Your task to perform on an android device: turn off smart reply in the gmail app Image 0: 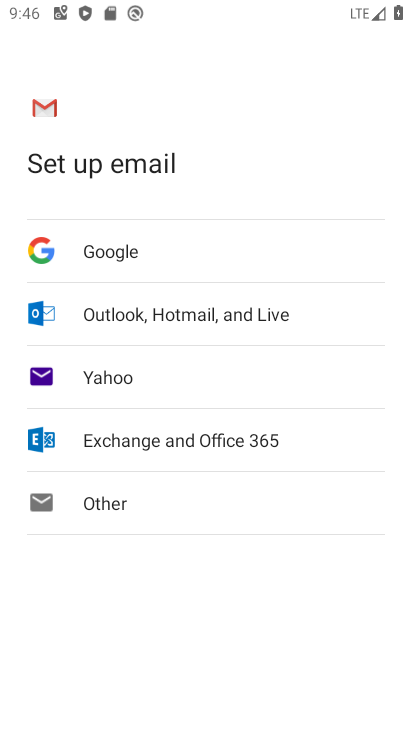
Step 0: press home button
Your task to perform on an android device: turn off smart reply in the gmail app Image 1: 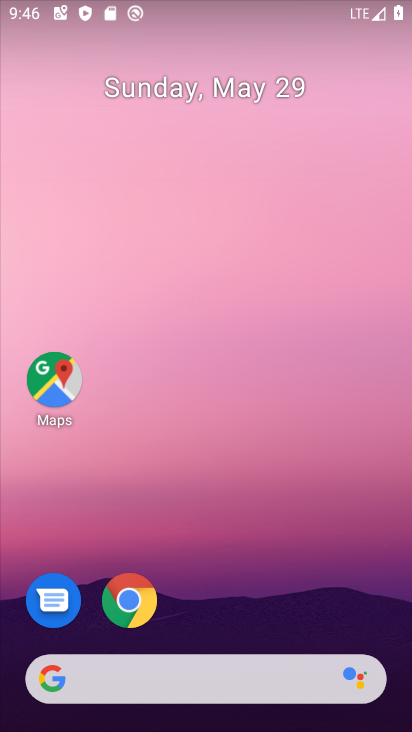
Step 1: drag from (262, 598) to (287, 35)
Your task to perform on an android device: turn off smart reply in the gmail app Image 2: 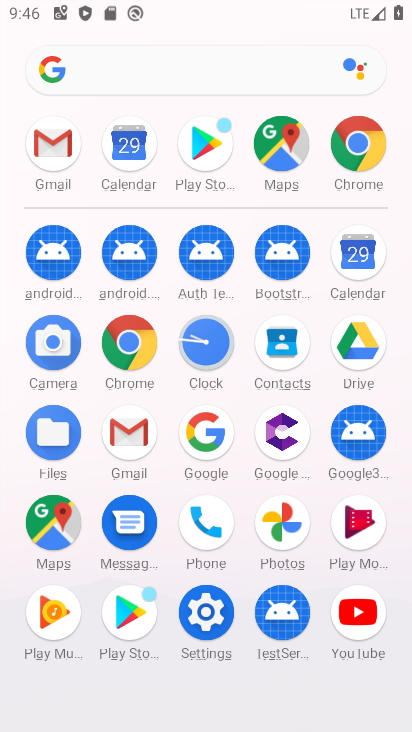
Step 2: click (124, 433)
Your task to perform on an android device: turn off smart reply in the gmail app Image 3: 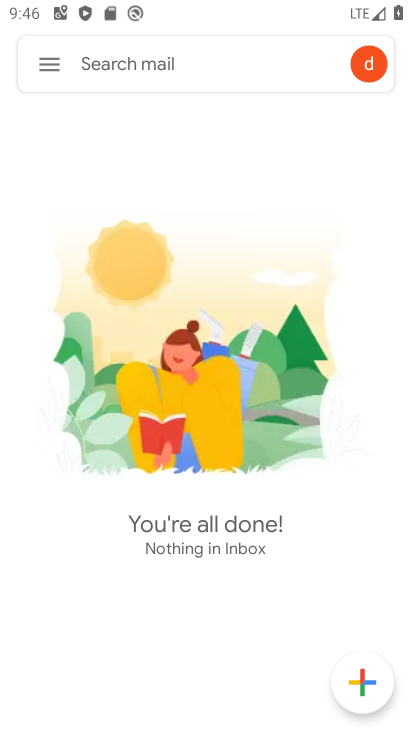
Step 3: click (40, 72)
Your task to perform on an android device: turn off smart reply in the gmail app Image 4: 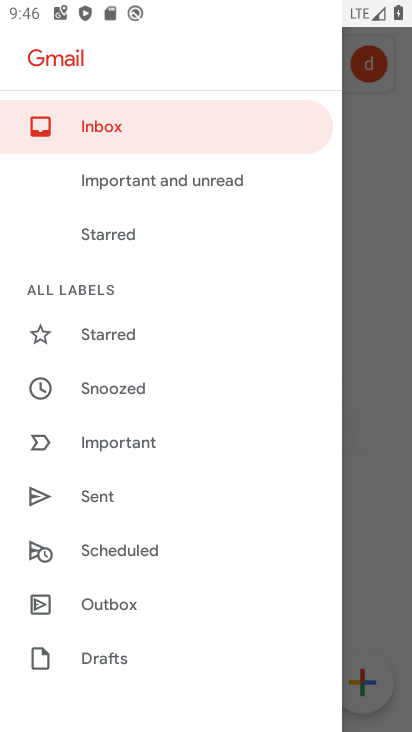
Step 4: drag from (165, 643) to (162, 304)
Your task to perform on an android device: turn off smart reply in the gmail app Image 5: 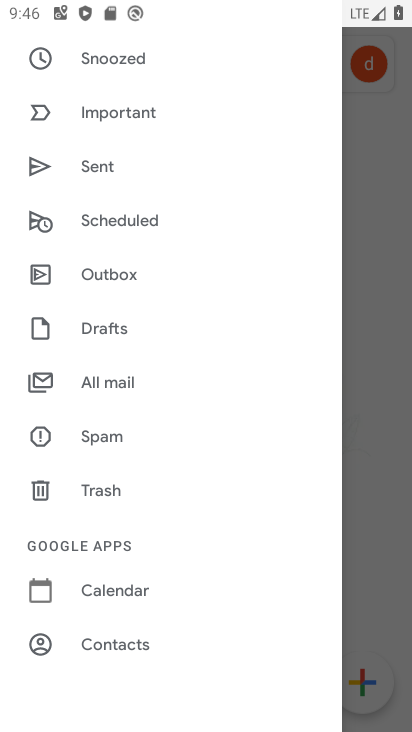
Step 5: drag from (190, 607) to (181, 222)
Your task to perform on an android device: turn off smart reply in the gmail app Image 6: 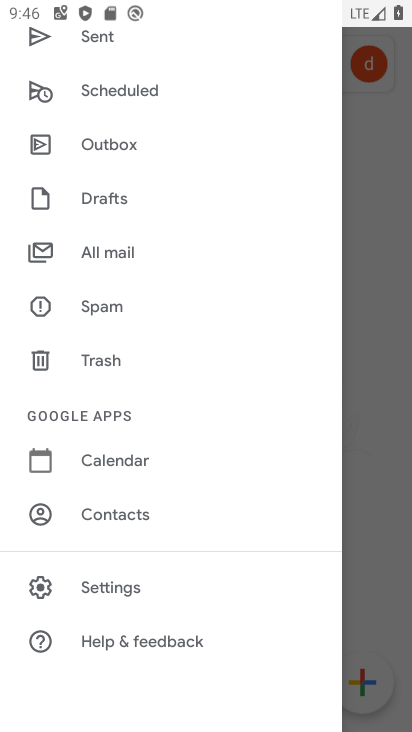
Step 6: click (108, 587)
Your task to perform on an android device: turn off smart reply in the gmail app Image 7: 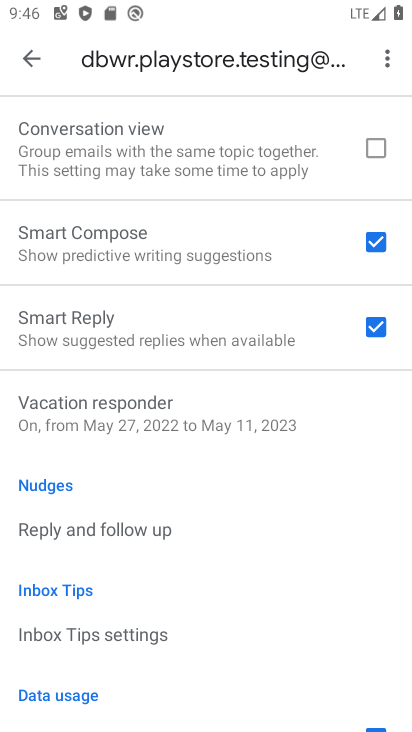
Step 7: drag from (208, 651) to (215, 242)
Your task to perform on an android device: turn off smart reply in the gmail app Image 8: 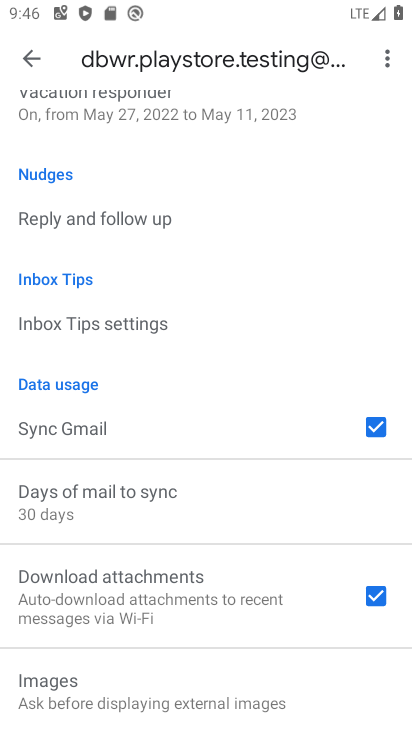
Step 8: drag from (213, 643) to (259, 324)
Your task to perform on an android device: turn off smart reply in the gmail app Image 9: 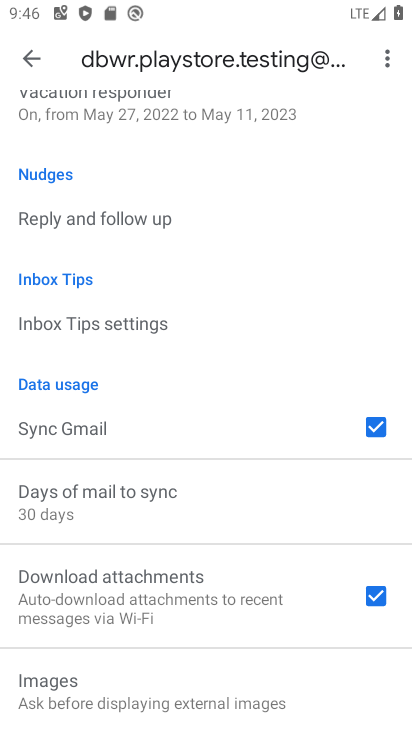
Step 9: drag from (245, 290) to (191, 542)
Your task to perform on an android device: turn off smart reply in the gmail app Image 10: 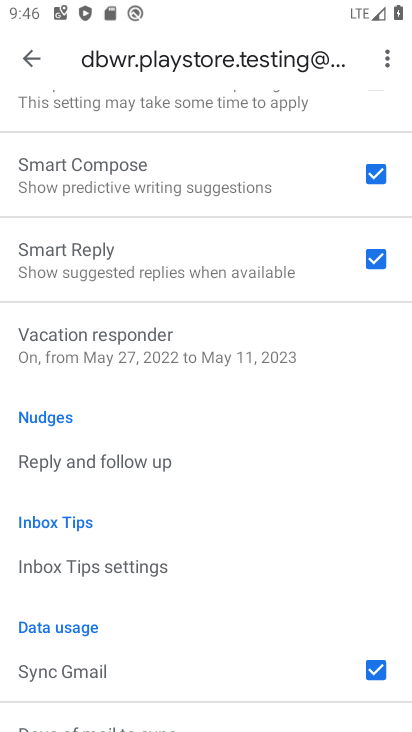
Step 10: click (369, 256)
Your task to perform on an android device: turn off smart reply in the gmail app Image 11: 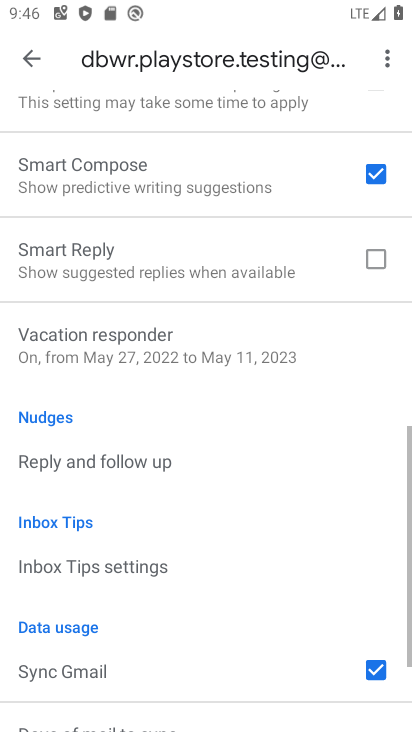
Step 11: task complete